Your task to perform on an android device: Show me popular videos on Youtube Image 0: 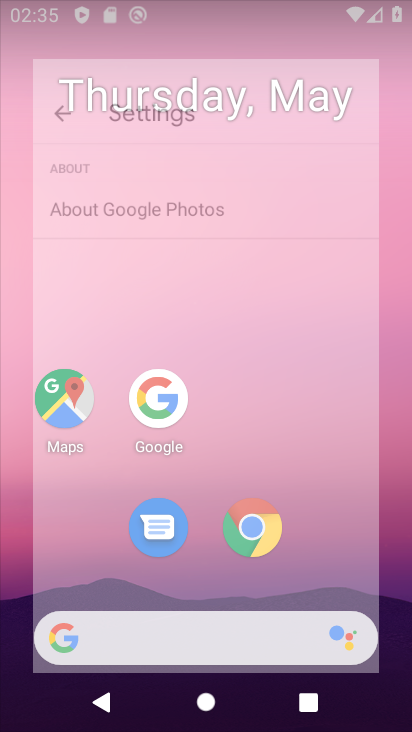
Step 0: drag from (206, 565) to (261, 96)
Your task to perform on an android device: Show me popular videos on Youtube Image 1: 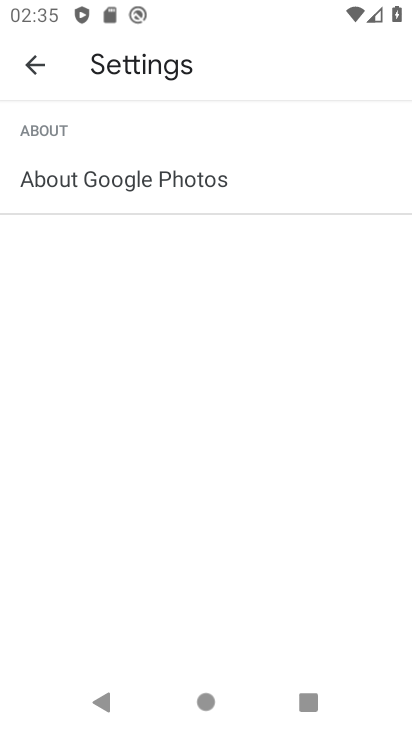
Step 1: drag from (210, 504) to (246, 117)
Your task to perform on an android device: Show me popular videos on Youtube Image 2: 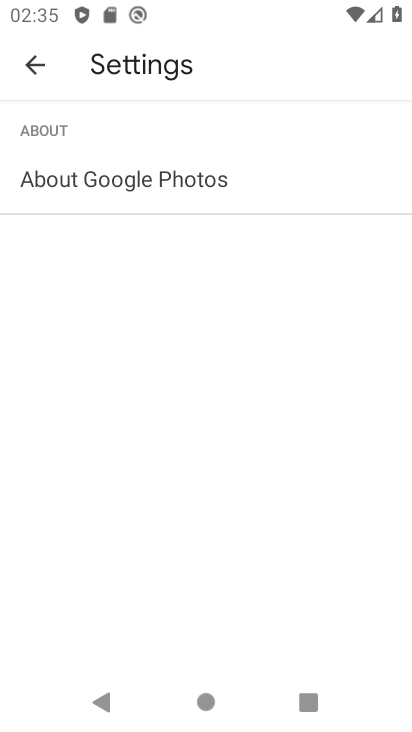
Step 2: drag from (184, 554) to (215, 64)
Your task to perform on an android device: Show me popular videos on Youtube Image 3: 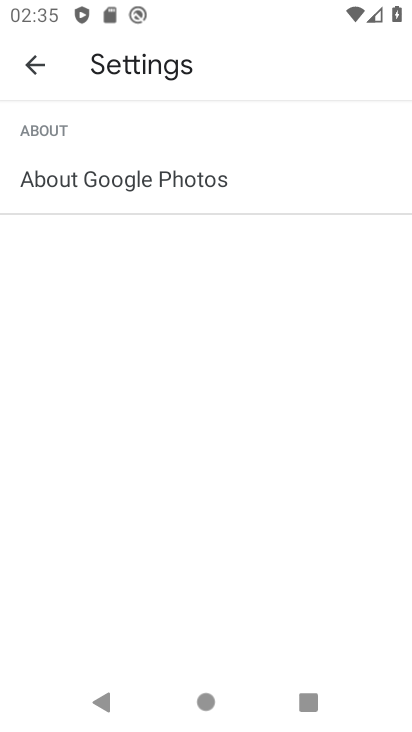
Step 3: drag from (180, 497) to (187, 127)
Your task to perform on an android device: Show me popular videos on Youtube Image 4: 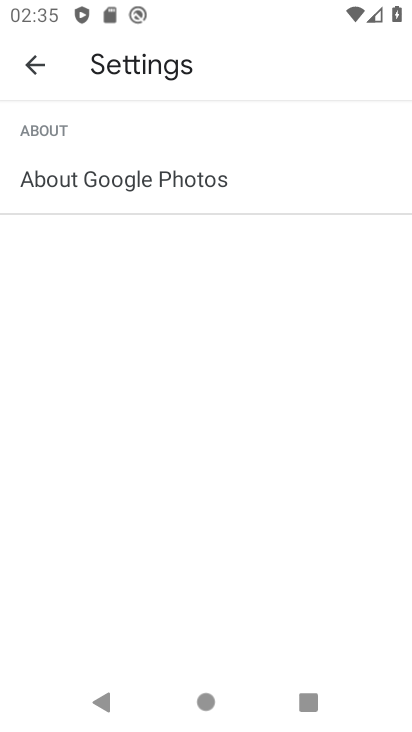
Step 4: drag from (244, 523) to (252, 107)
Your task to perform on an android device: Show me popular videos on Youtube Image 5: 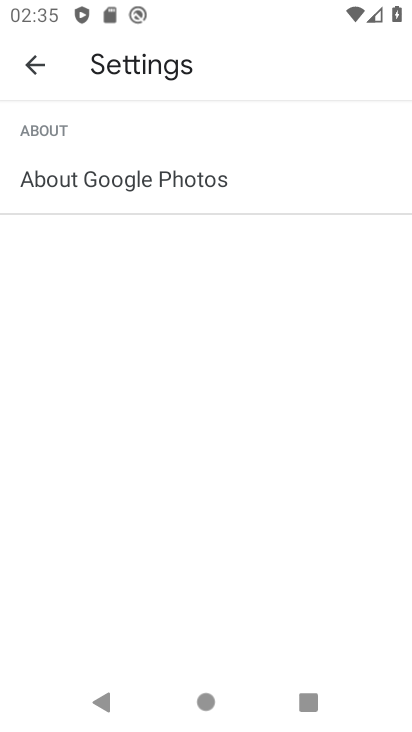
Step 5: drag from (211, 495) to (216, 114)
Your task to perform on an android device: Show me popular videos on Youtube Image 6: 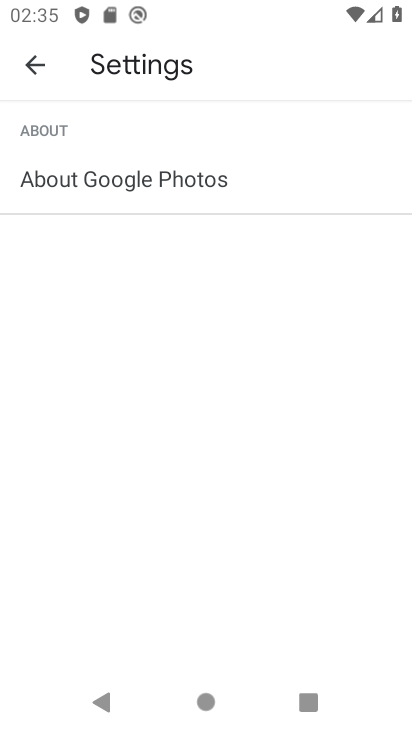
Step 6: drag from (228, 617) to (177, 264)
Your task to perform on an android device: Show me popular videos on Youtube Image 7: 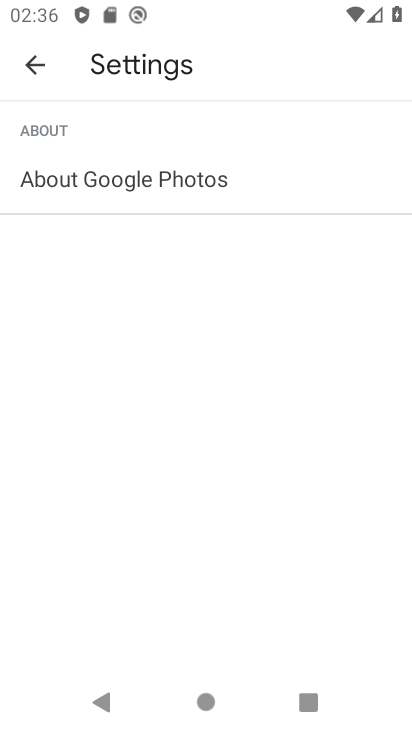
Step 7: press home button
Your task to perform on an android device: Show me popular videos on Youtube Image 8: 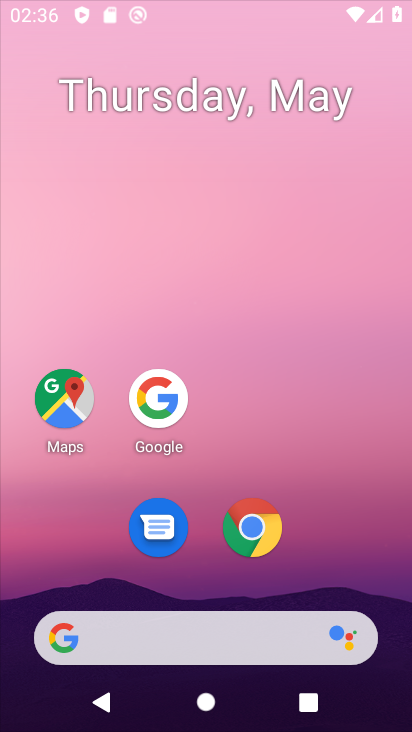
Step 8: drag from (174, 653) to (255, 198)
Your task to perform on an android device: Show me popular videos on Youtube Image 9: 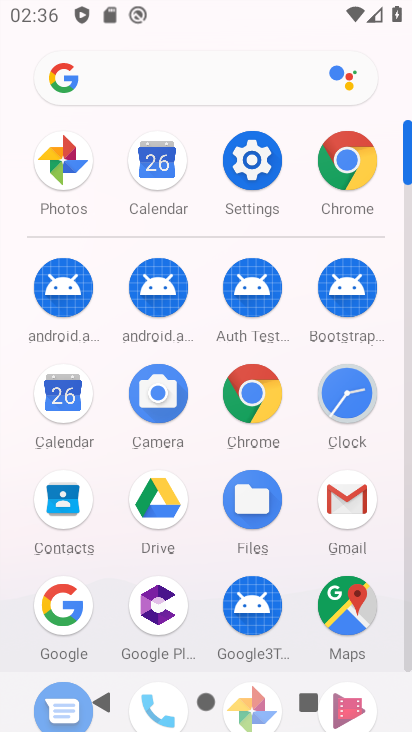
Step 9: drag from (197, 640) to (224, 273)
Your task to perform on an android device: Show me popular videos on Youtube Image 10: 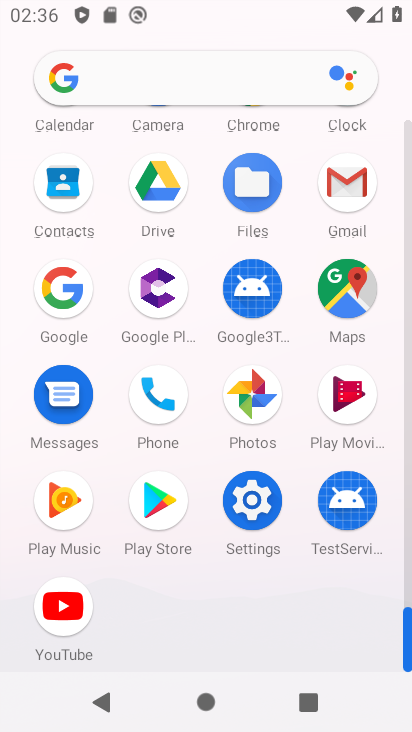
Step 10: click (70, 589)
Your task to perform on an android device: Show me popular videos on Youtube Image 11: 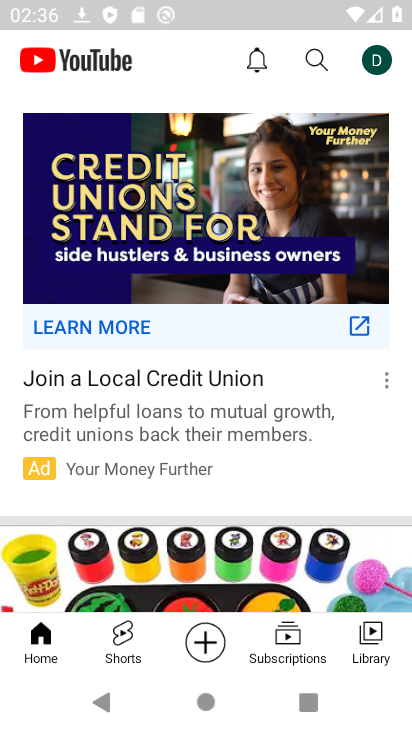
Step 11: task complete